Your task to perform on an android device: Go to Wikipedia Image 0: 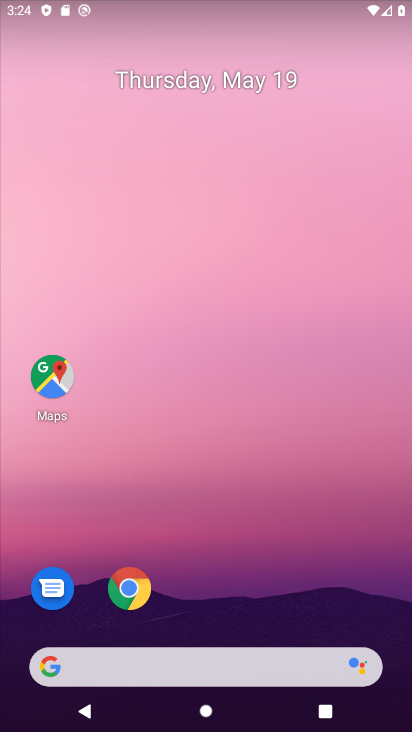
Step 0: drag from (246, 661) to (159, 209)
Your task to perform on an android device: Go to Wikipedia Image 1: 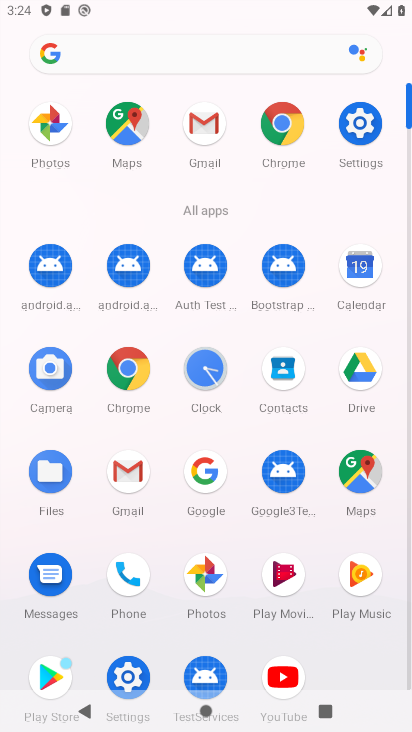
Step 1: click (264, 126)
Your task to perform on an android device: Go to Wikipedia Image 2: 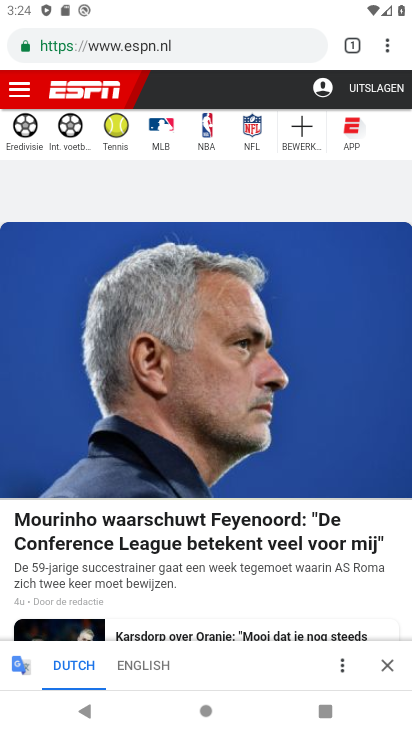
Step 2: click (349, 48)
Your task to perform on an android device: Go to Wikipedia Image 3: 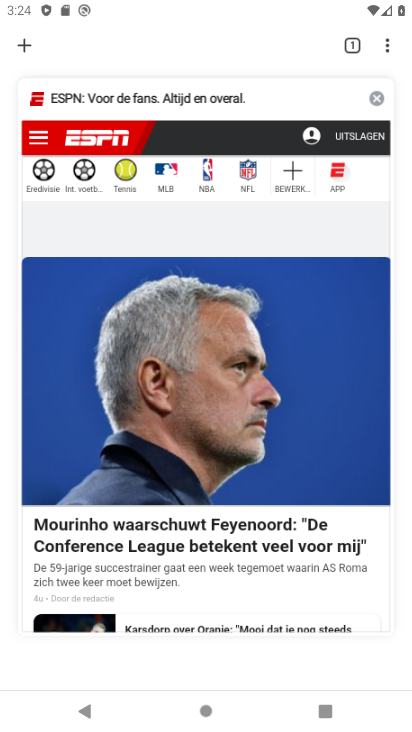
Step 3: click (14, 38)
Your task to perform on an android device: Go to Wikipedia Image 4: 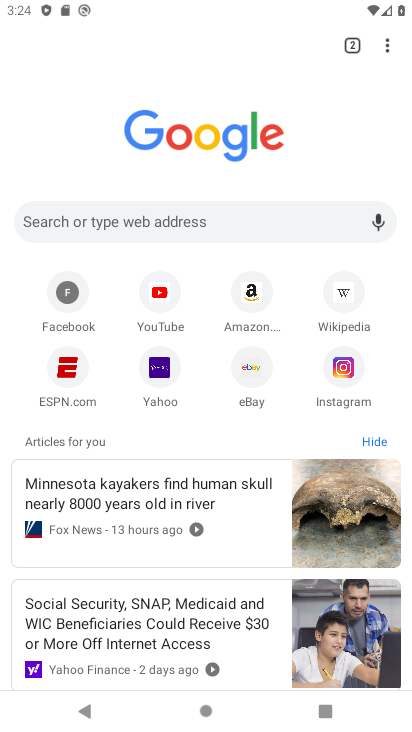
Step 4: click (341, 302)
Your task to perform on an android device: Go to Wikipedia Image 5: 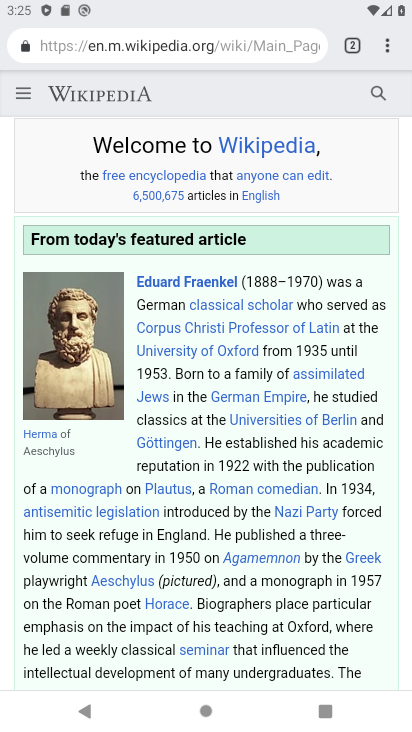
Step 5: task complete